Your task to perform on an android device: toggle airplane mode Image 0: 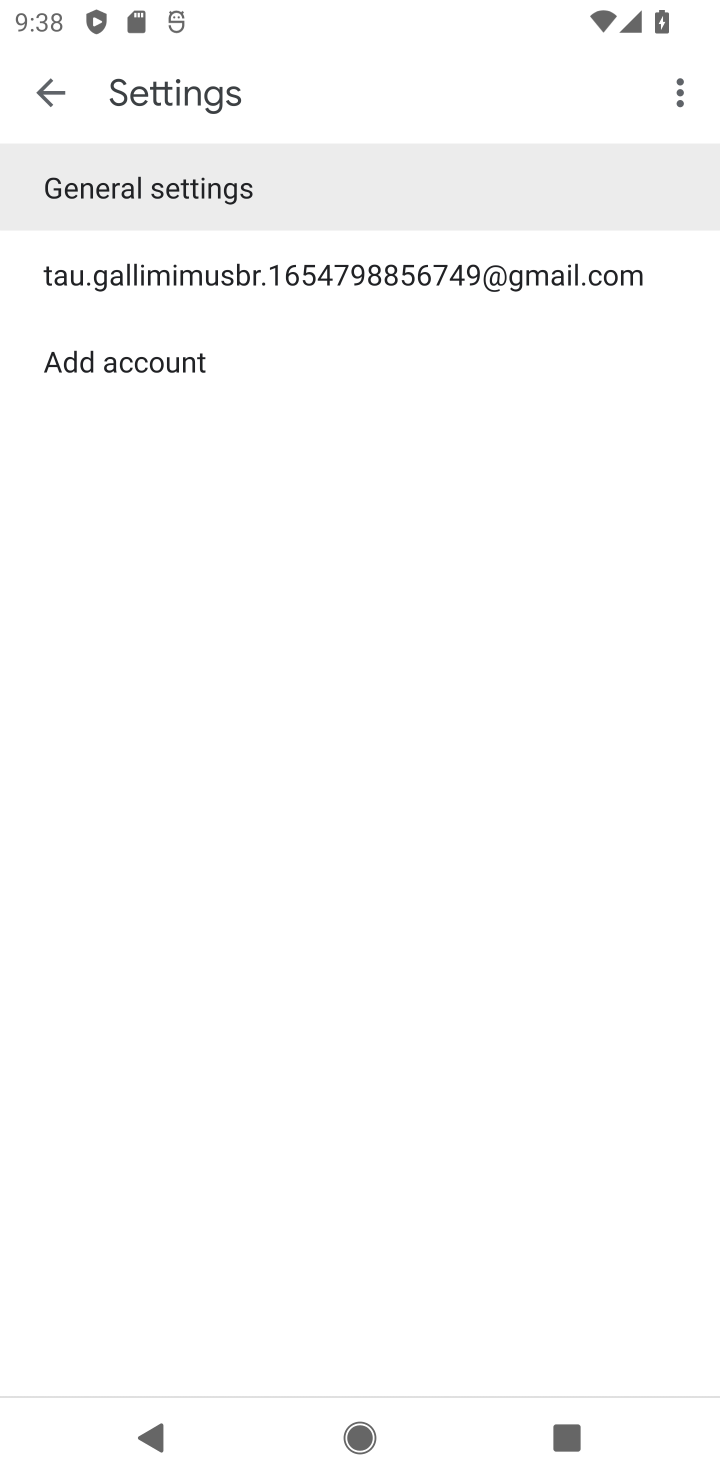
Step 0: press home button
Your task to perform on an android device: toggle airplane mode Image 1: 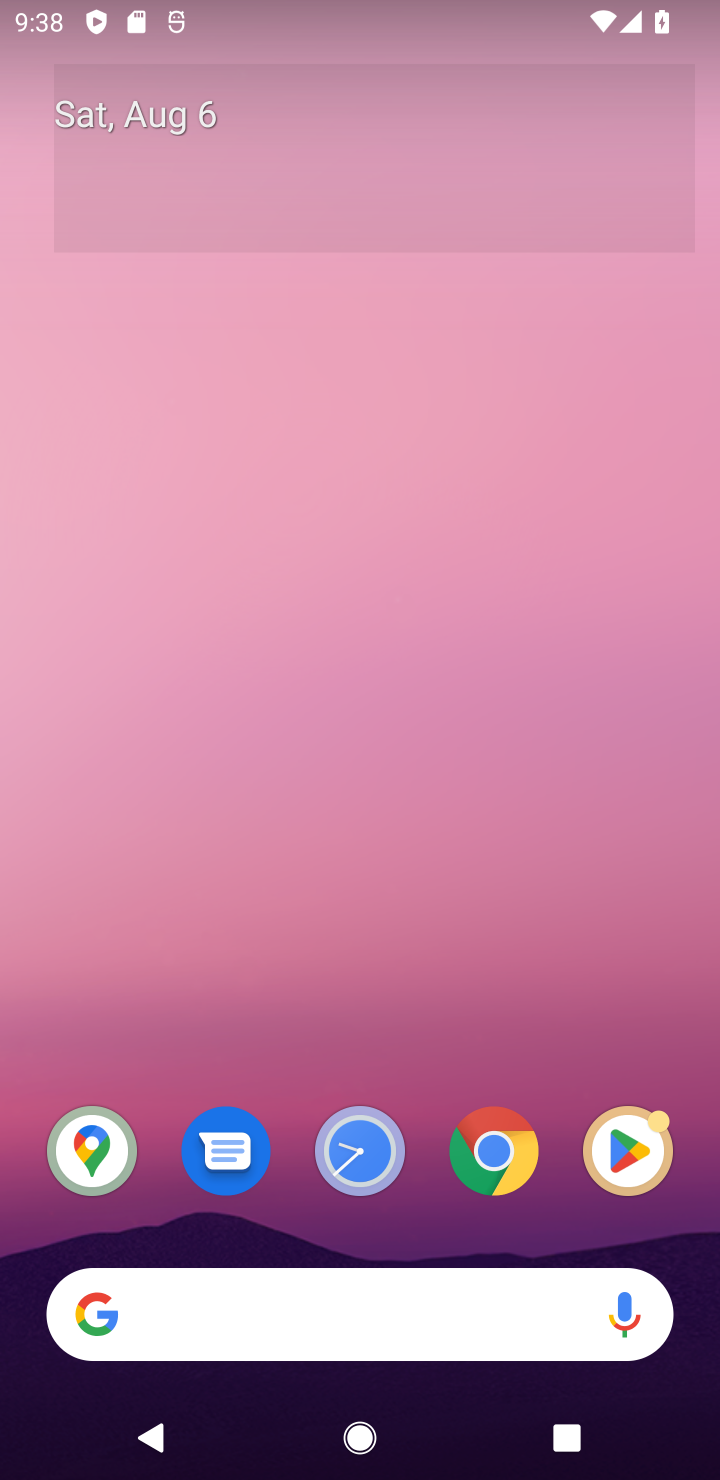
Step 1: drag from (355, 1015) to (436, 5)
Your task to perform on an android device: toggle airplane mode Image 2: 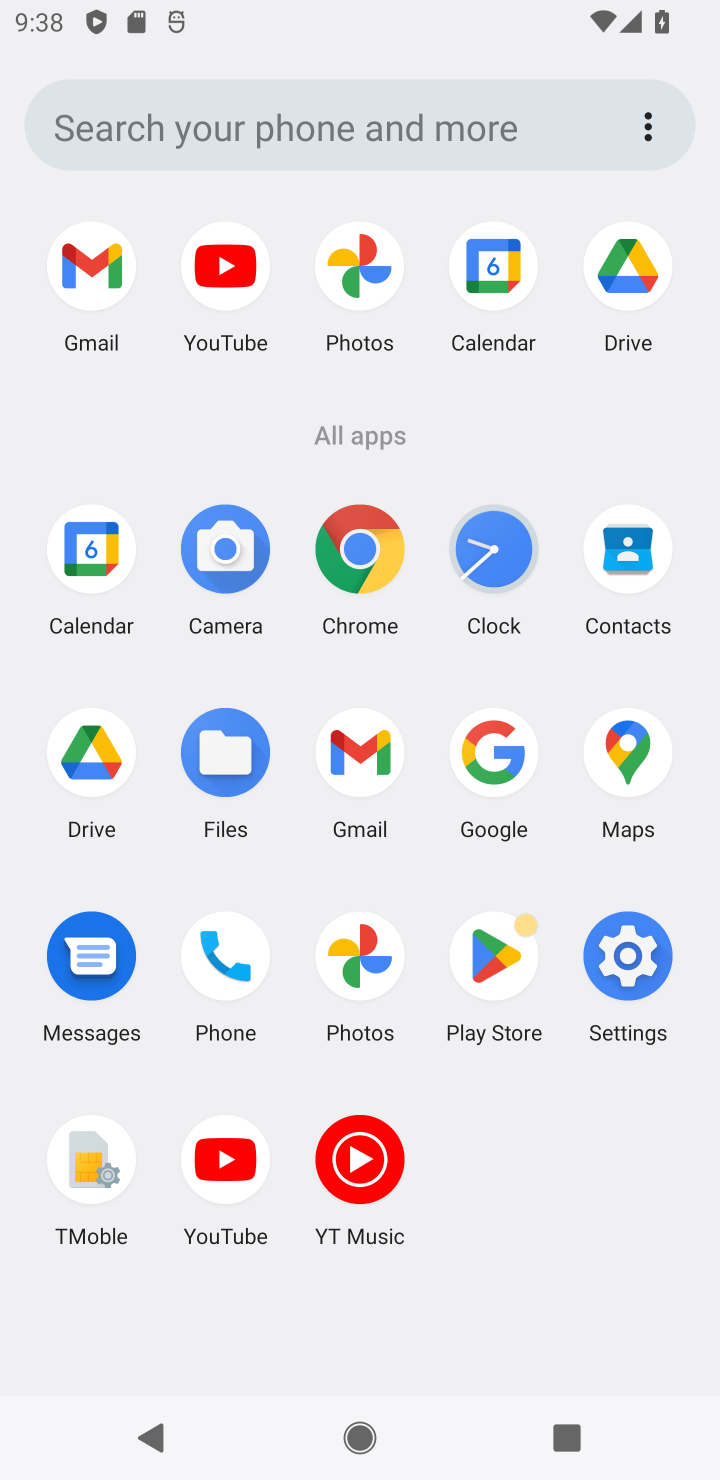
Step 2: click (642, 973)
Your task to perform on an android device: toggle airplane mode Image 3: 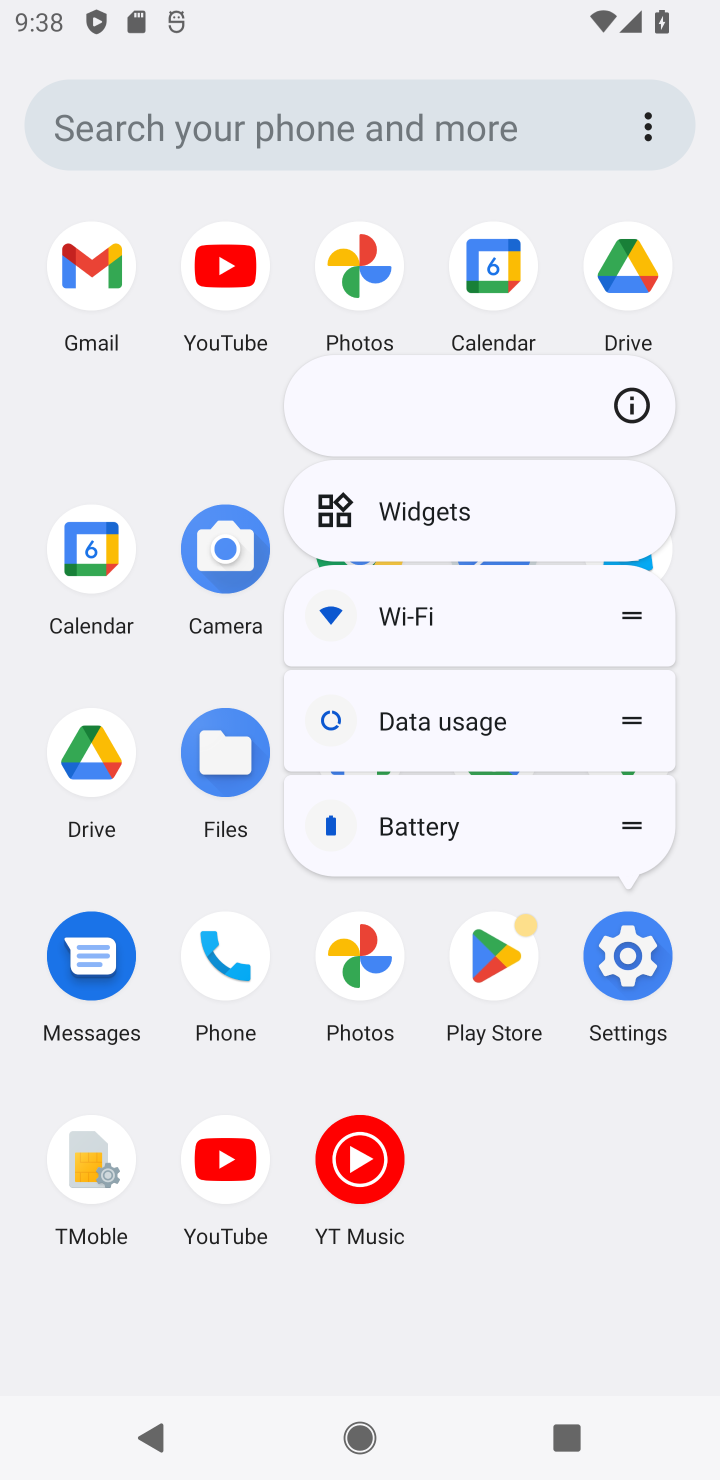
Step 3: click (640, 968)
Your task to perform on an android device: toggle airplane mode Image 4: 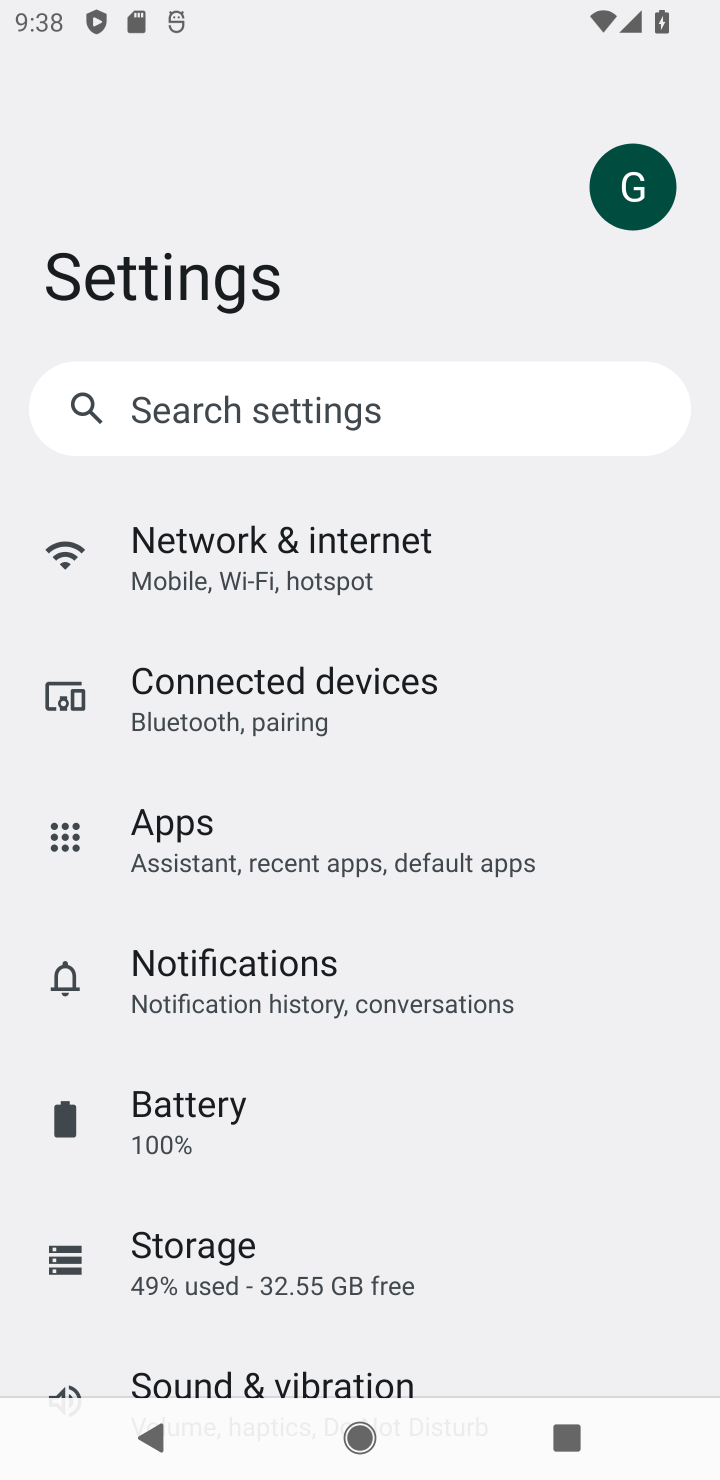
Step 4: task complete